Your task to perform on an android device: Open privacy settings Image 0: 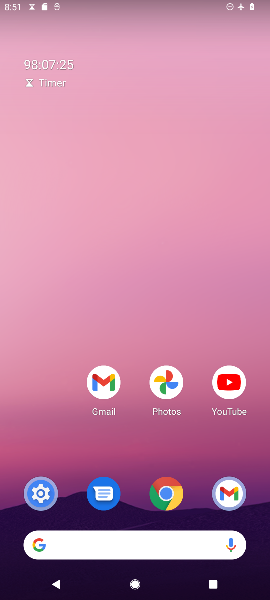
Step 0: drag from (167, 500) to (167, 140)
Your task to perform on an android device: Open privacy settings Image 1: 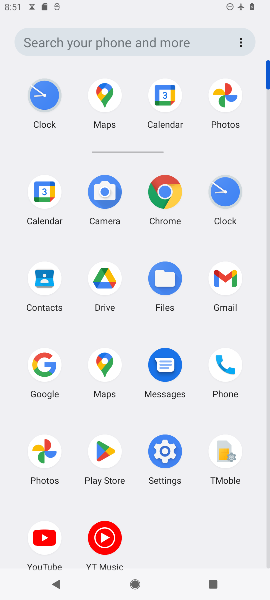
Step 1: click (178, 447)
Your task to perform on an android device: Open privacy settings Image 2: 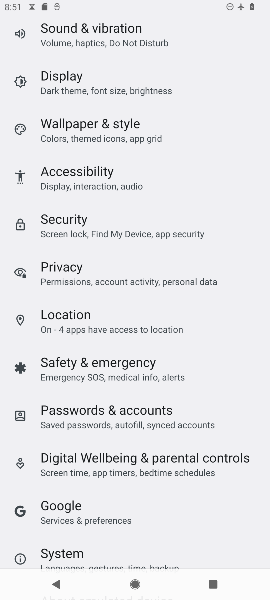
Step 2: click (82, 270)
Your task to perform on an android device: Open privacy settings Image 3: 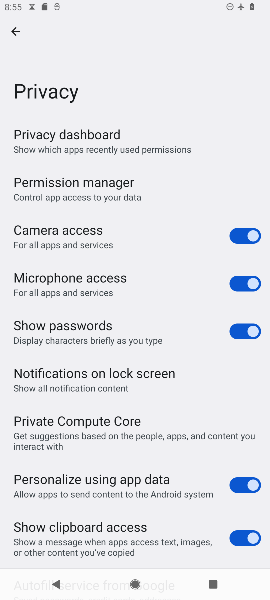
Step 3: task complete